Your task to perform on an android device: turn on translation in the chrome app Image 0: 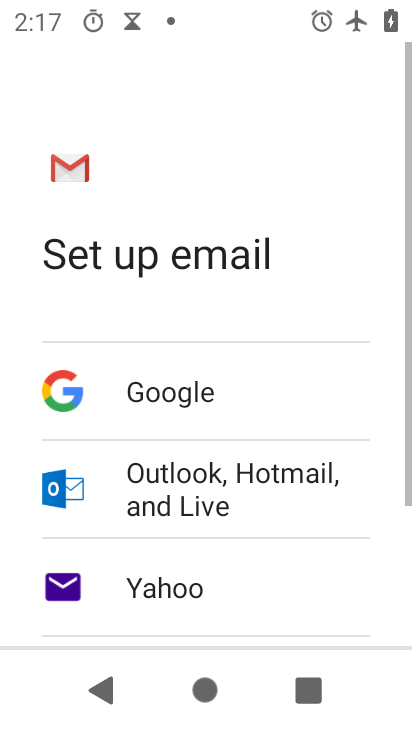
Step 0: press home button
Your task to perform on an android device: turn on translation in the chrome app Image 1: 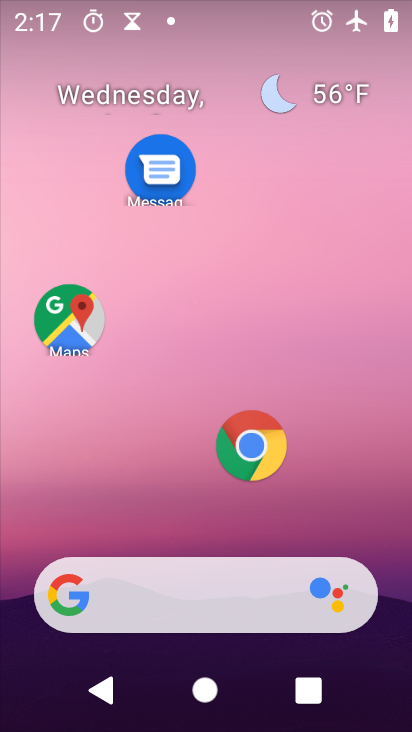
Step 1: drag from (193, 494) to (314, 125)
Your task to perform on an android device: turn on translation in the chrome app Image 2: 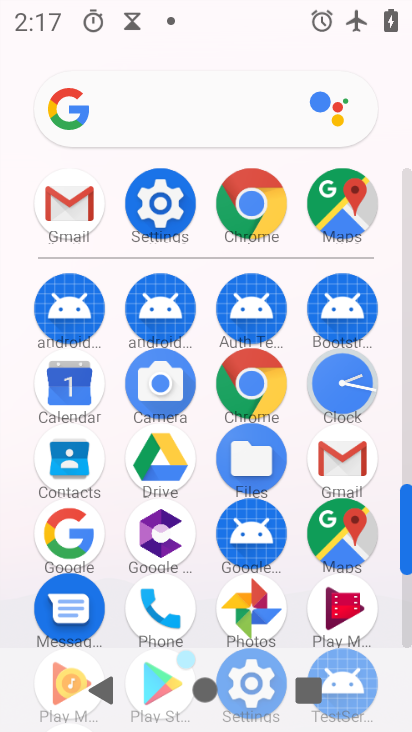
Step 2: click (248, 375)
Your task to perform on an android device: turn on translation in the chrome app Image 3: 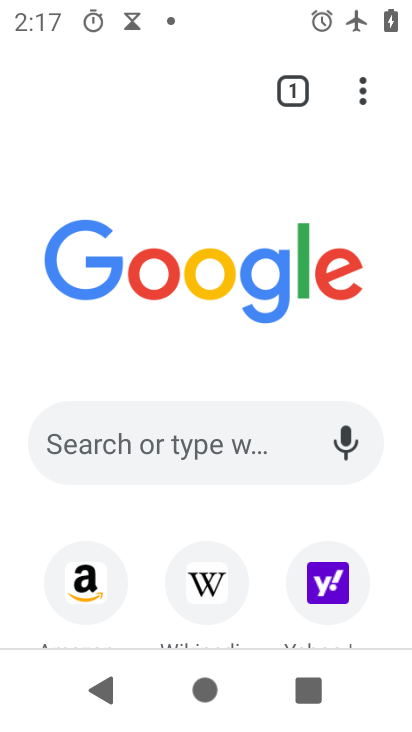
Step 3: click (371, 101)
Your task to perform on an android device: turn on translation in the chrome app Image 4: 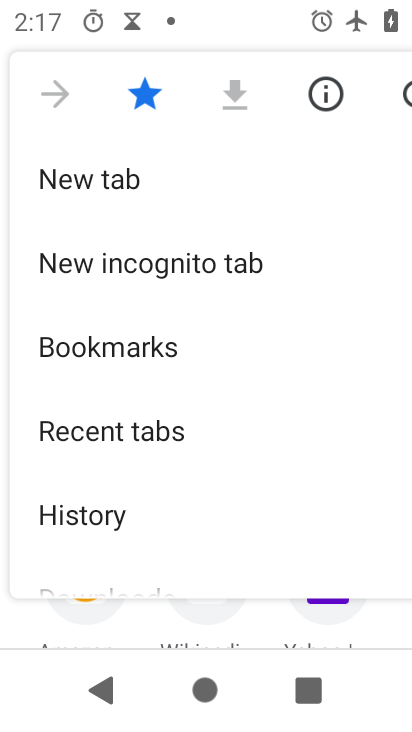
Step 4: drag from (148, 457) to (189, 151)
Your task to perform on an android device: turn on translation in the chrome app Image 5: 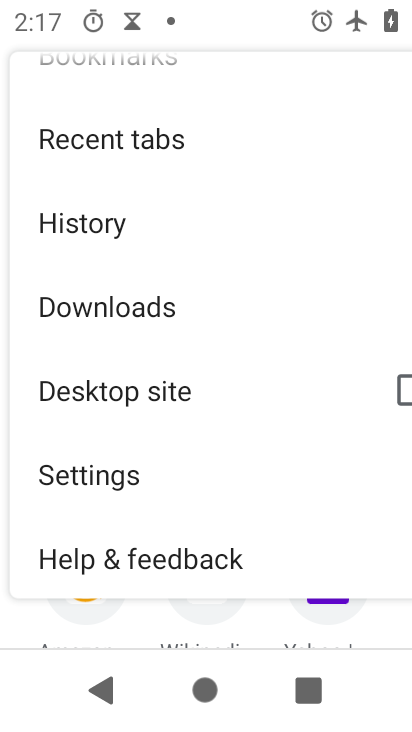
Step 5: click (142, 477)
Your task to perform on an android device: turn on translation in the chrome app Image 6: 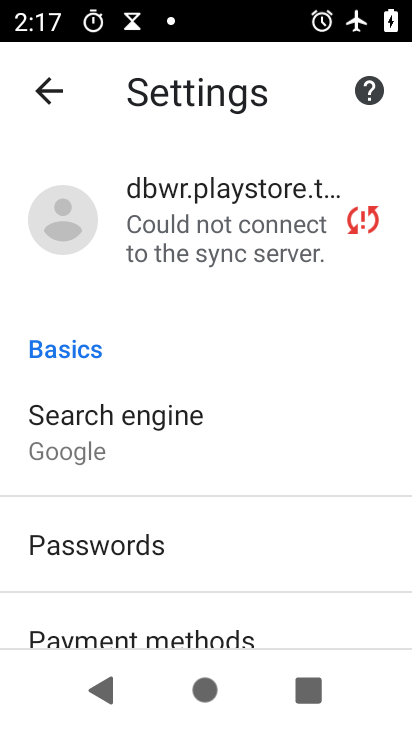
Step 6: drag from (157, 567) to (183, 271)
Your task to perform on an android device: turn on translation in the chrome app Image 7: 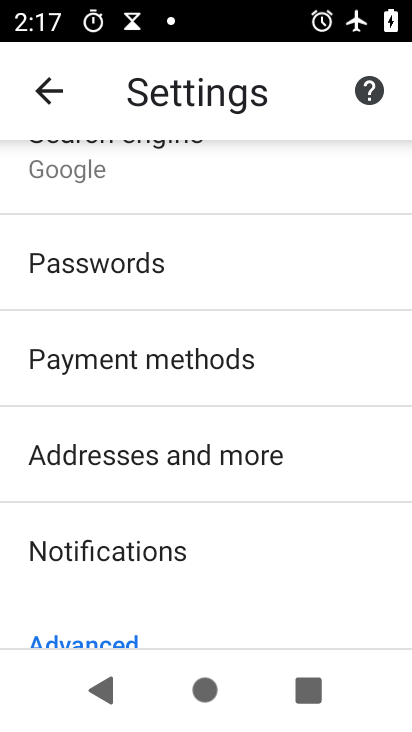
Step 7: drag from (168, 544) to (196, 225)
Your task to perform on an android device: turn on translation in the chrome app Image 8: 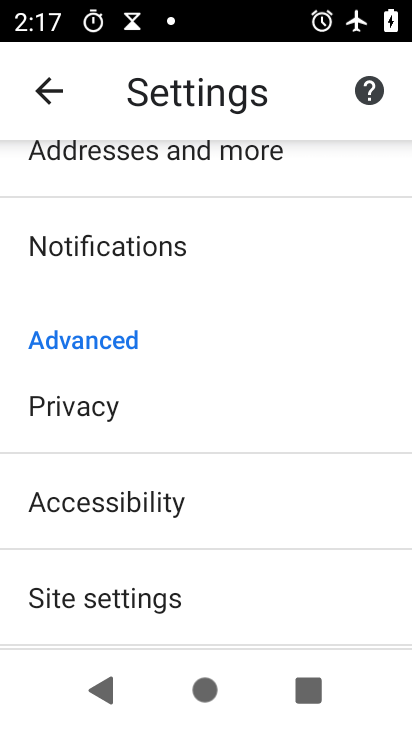
Step 8: drag from (191, 551) to (208, 233)
Your task to perform on an android device: turn on translation in the chrome app Image 9: 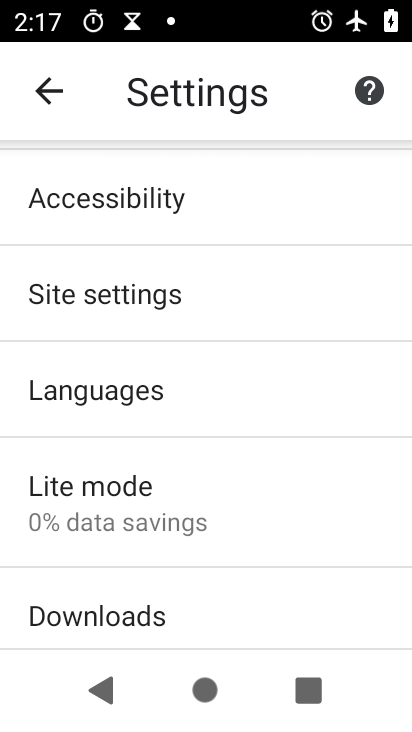
Step 9: click (194, 399)
Your task to perform on an android device: turn on translation in the chrome app Image 10: 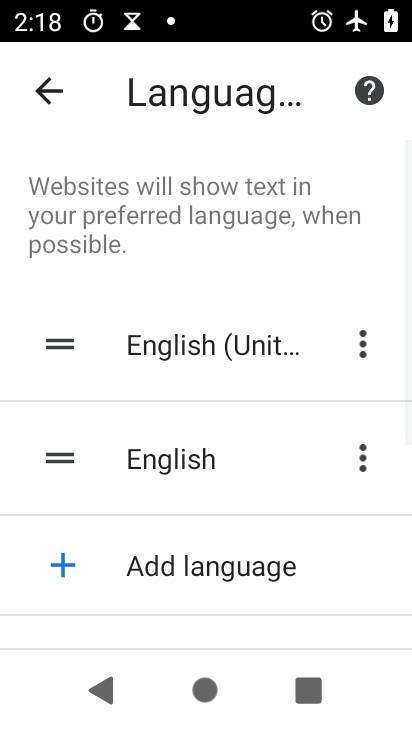
Step 10: task complete